Your task to perform on an android device: Find coffee shops on Maps Image 0: 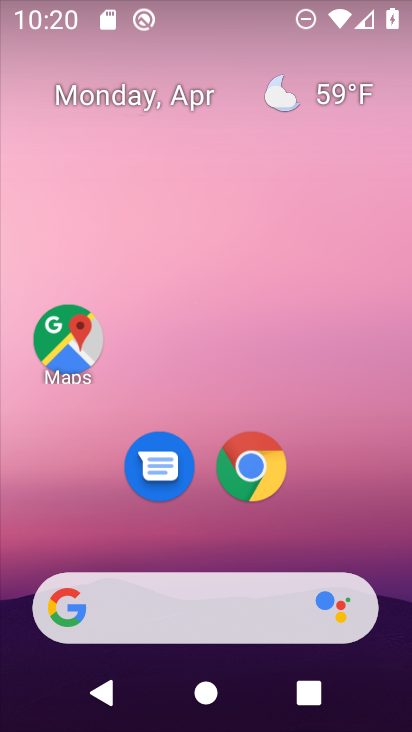
Step 0: click (78, 335)
Your task to perform on an android device: Find coffee shops on Maps Image 1: 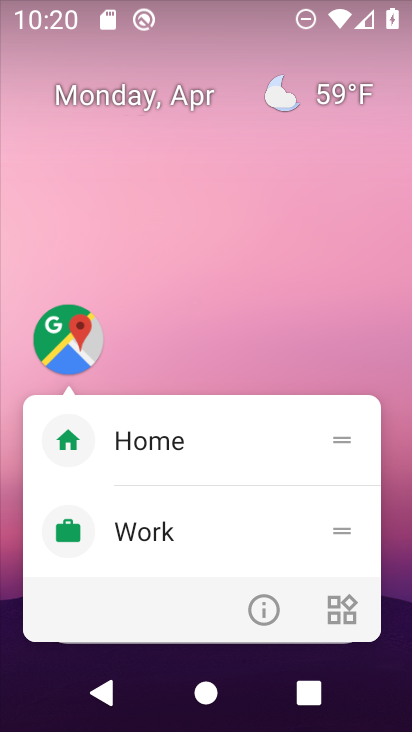
Step 1: click (47, 334)
Your task to perform on an android device: Find coffee shops on Maps Image 2: 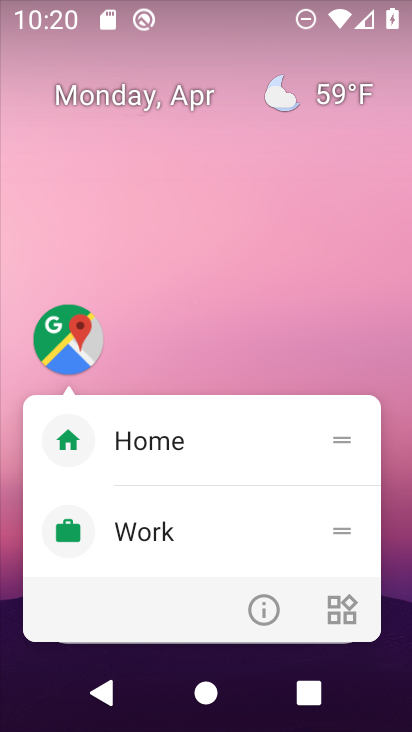
Step 2: click (55, 334)
Your task to perform on an android device: Find coffee shops on Maps Image 3: 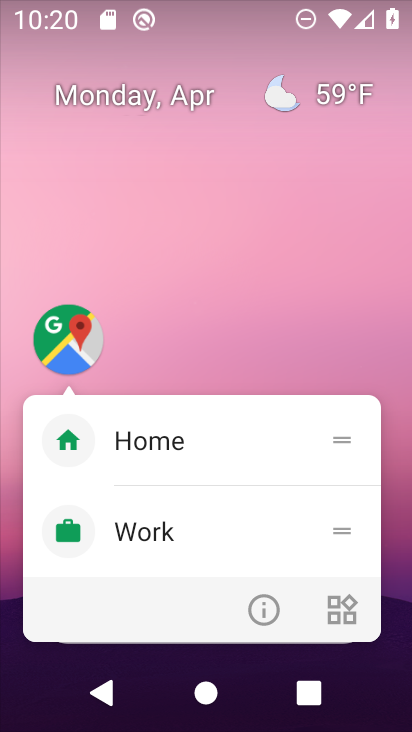
Step 3: click (73, 340)
Your task to perform on an android device: Find coffee shops on Maps Image 4: 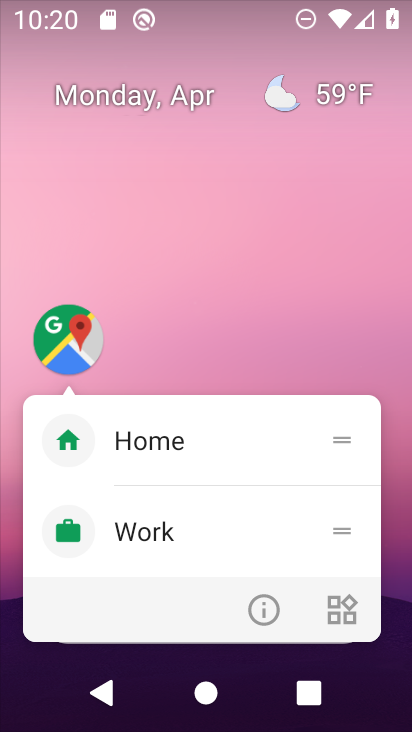
Step 4: click (77, 338)
Your task to perform on an android device: Find coffee shops on Maps Image 5: 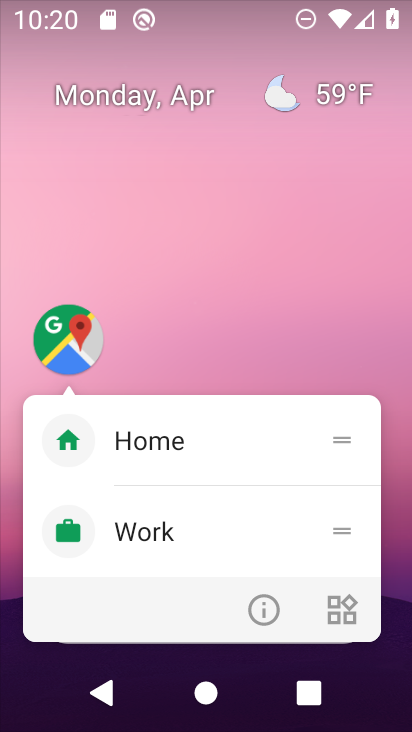
Step 5: click (69, 297)
Your task to perform on an android device: Find coffee shops on Maps Image 6: 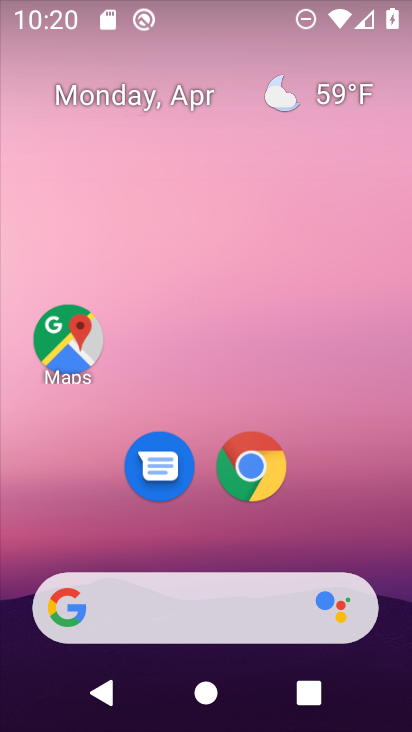
Step 6: click (63, 348)
Your task to perform on an android device: Find coffee shops on Maps Image 7: 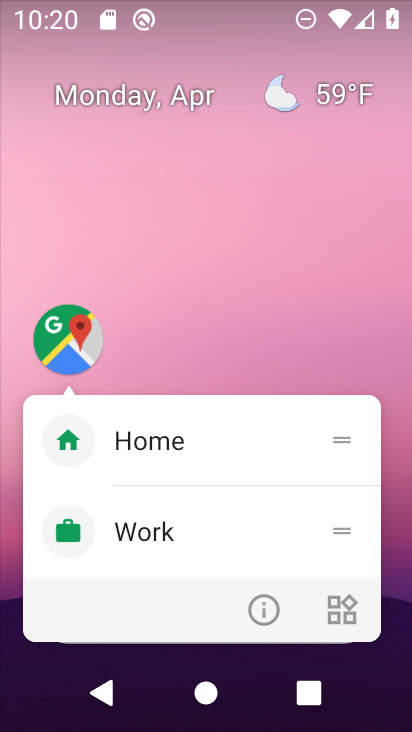
Step 7: click (77, 335)
Your task to perform on an android device: Find coffee shops on Maps Image 8: 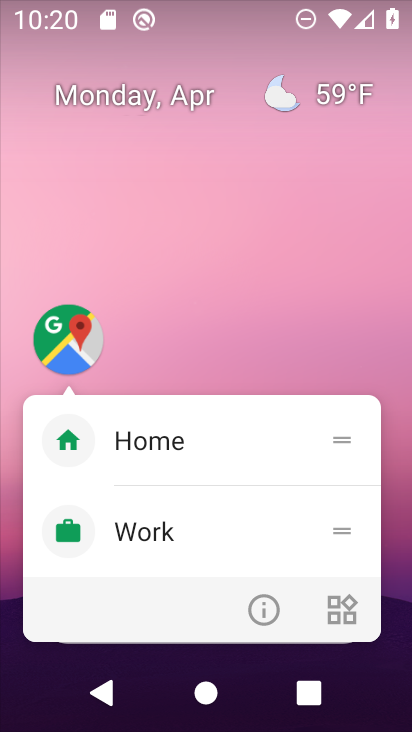
Step 8: click (67, 357)
Your task to perform on an android device: Find coffee shops on Maps Image 9: 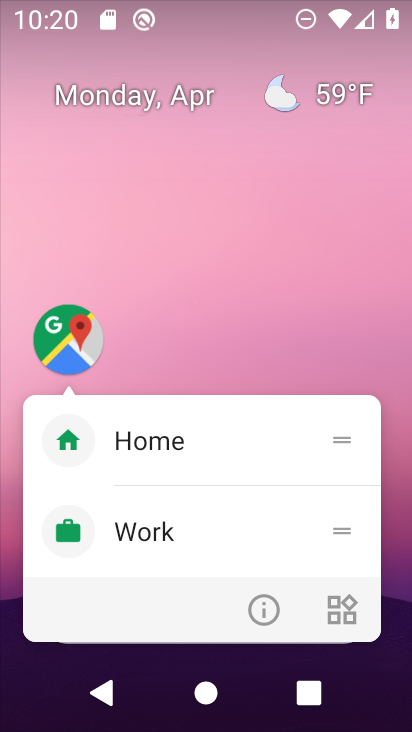
Step 9: click (68, 357)
Your task to perform on an android device: Find coffee shops on Maps Image 10: 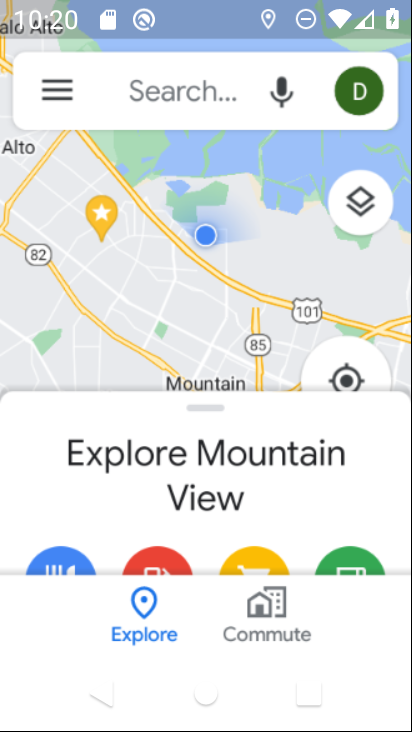
Step 10: click (169, 94)
Your task to perform on an android device: Find coffee shops on Maps Image 11: 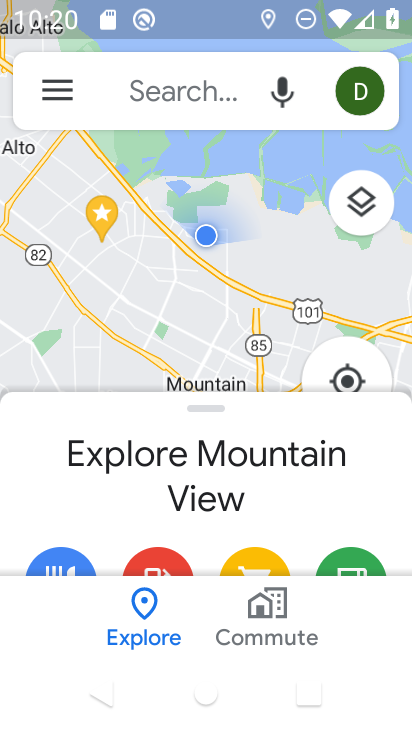
Step 11: click (171, 98)
Your task to perform on an android device: Find coffee shops on Maps Image 12: 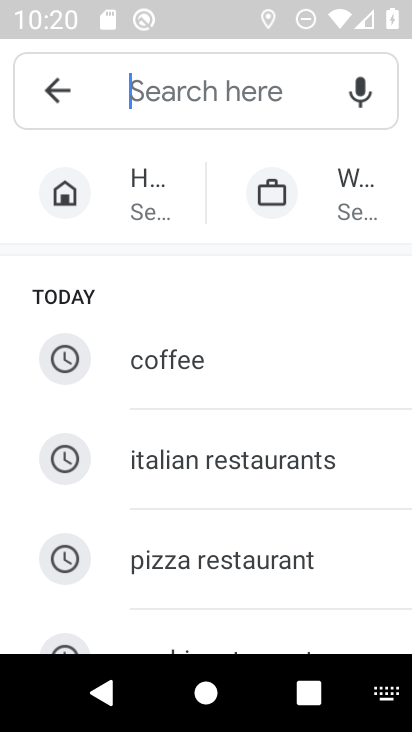
Step 12: drag from (247, 590) to (344, 28)
Your task to perform on an android device: Find coffee shops on Maps Image 13: 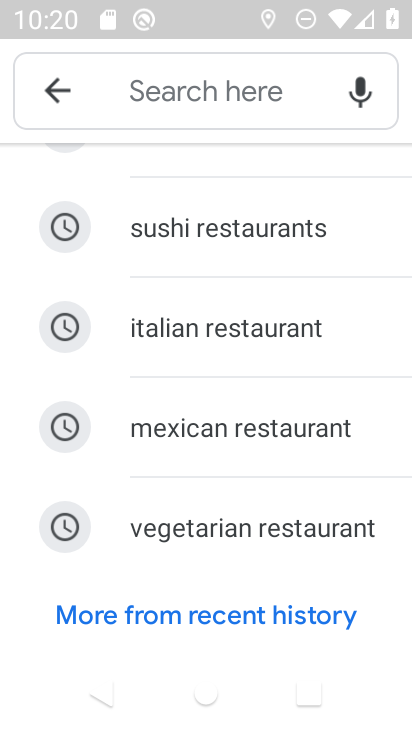
Step 13: drag from (212, 236) to (212, 673)
Your task to perform on an android device: Find coffee shops on Maps Image 14: 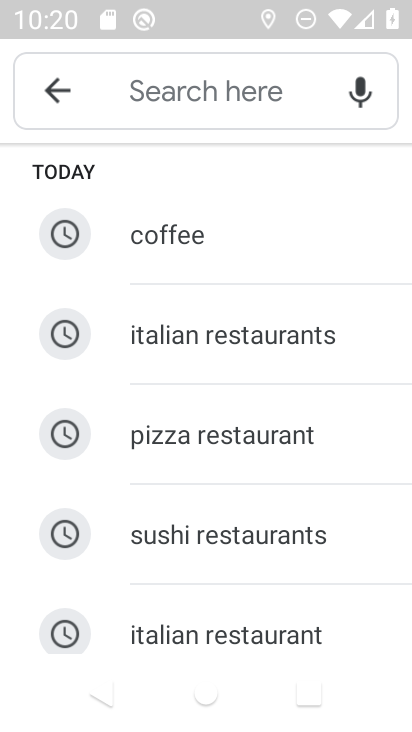
Step 14: click (181, 231)
Your task to perform on an android device: Find coffee shops on Maps Image 15: 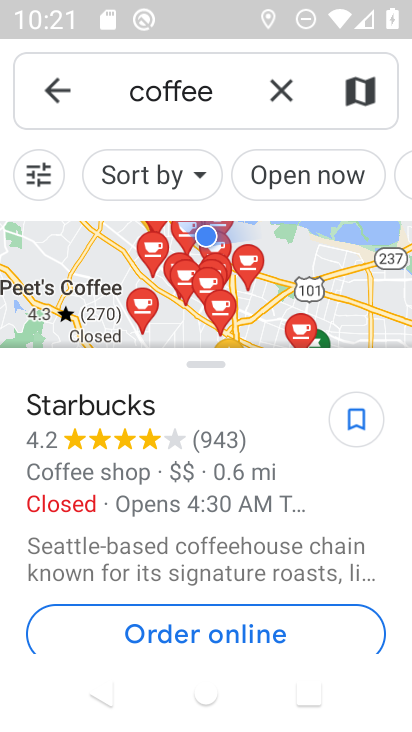
Step 15: task complete